Your task to perform on an android device: turn on sleep mode Image 0: 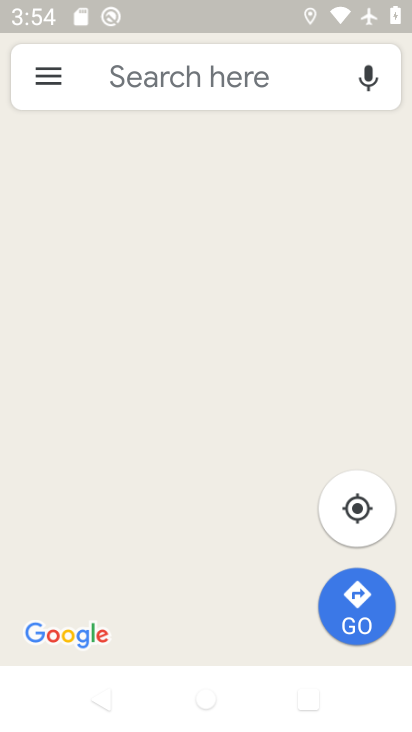
Step 0: press home button
Your task to perform on an android device: turn on sleep mode Image 1: 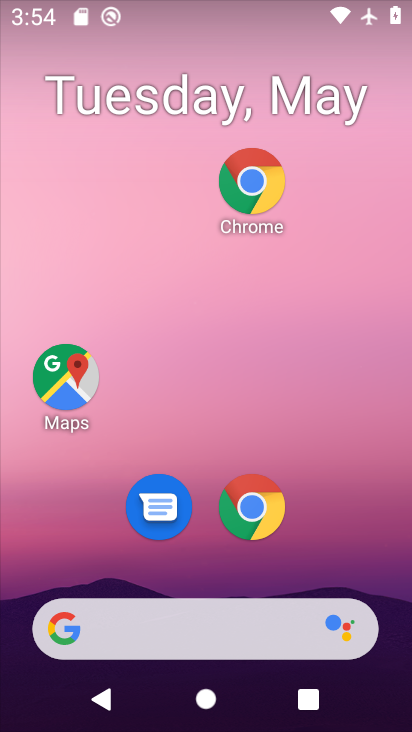
Step 1: drag from (306, 535) to (309, 155)
Your task to perform on an android device: turn on sleep mode Image 2: 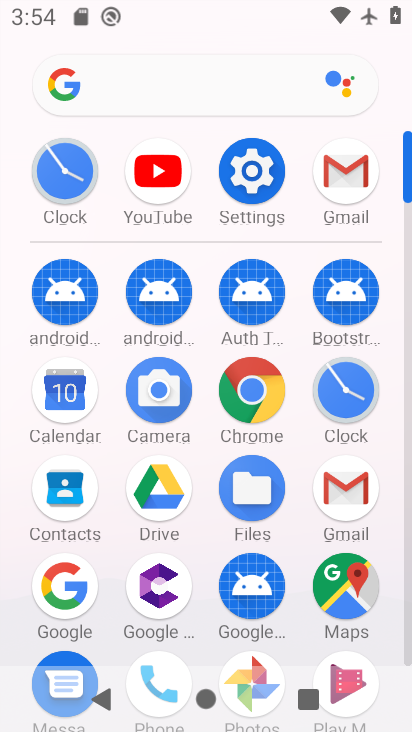
Step 2: click (261, 173)
Your task to perform on an android device: turn on sleep mode Image 3: 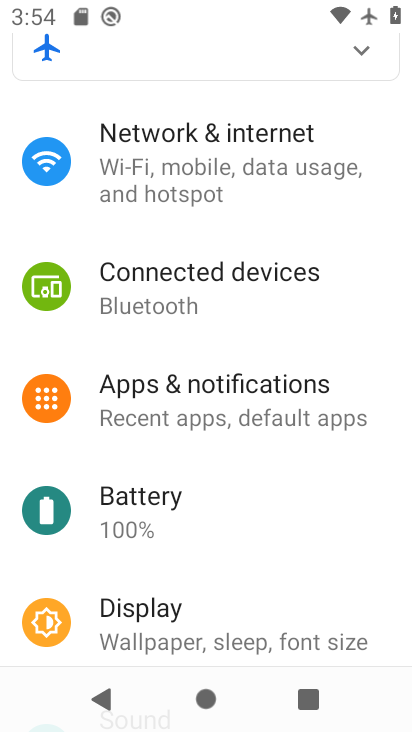
Step 3: drag from (243, 197) to (234, 542)
Your task to perform on an android device: turn on sleep mode Image 4: 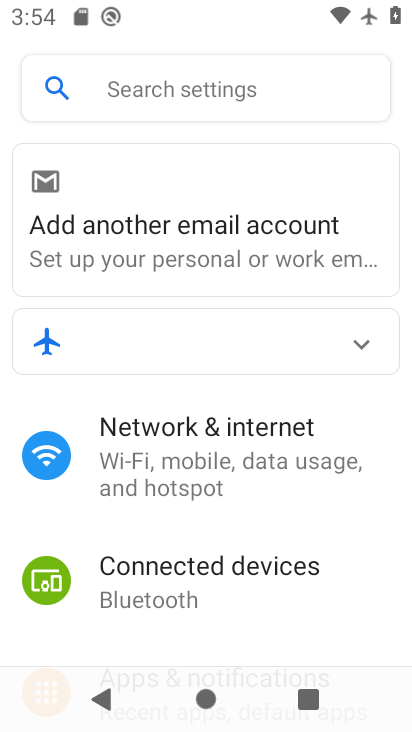
Step 4: drag from (225, 621) to (260, 251)
Your task to perform on an android device: turn on sleep mode Image 5: 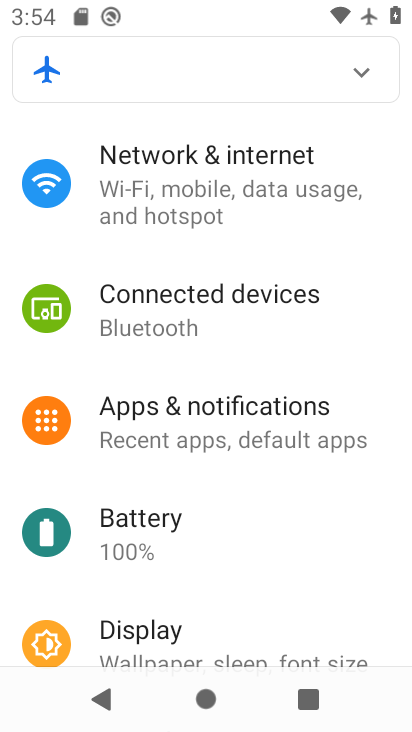
Step 5: drag from (252, 543) to (303, 182)
Your task to perform on an android device: turn on sleep mode Image 6: 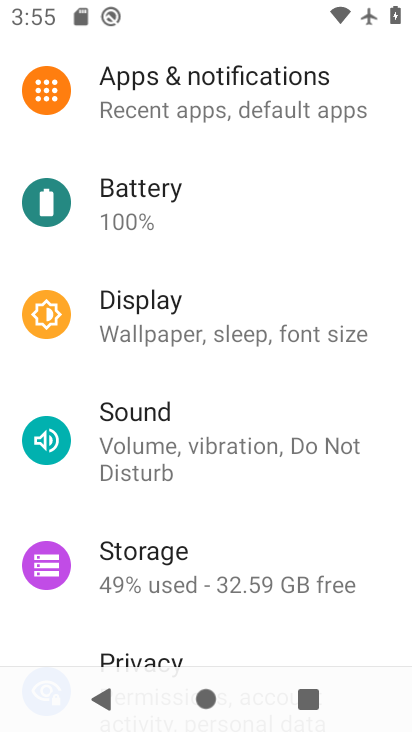
Step 6: click (146, 310)
Your task to perform on an android device: turn on sleep mode Image 7: 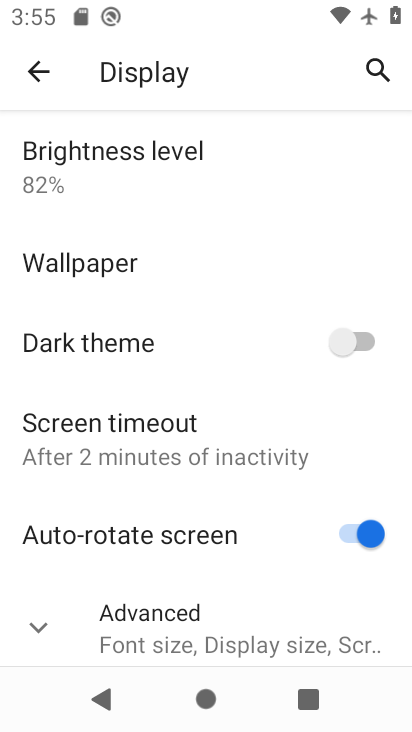
Step 7: drag from (146, 266) to (206, 533)
Your task to perform on an android device: turn on sleep mode Image 8: 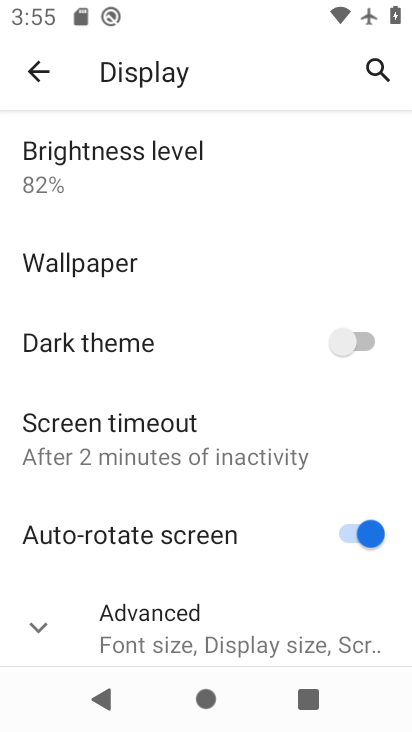
Step 8: click (193, 447)
Your task to perform on an android device: turn on sleep mode Image 9: 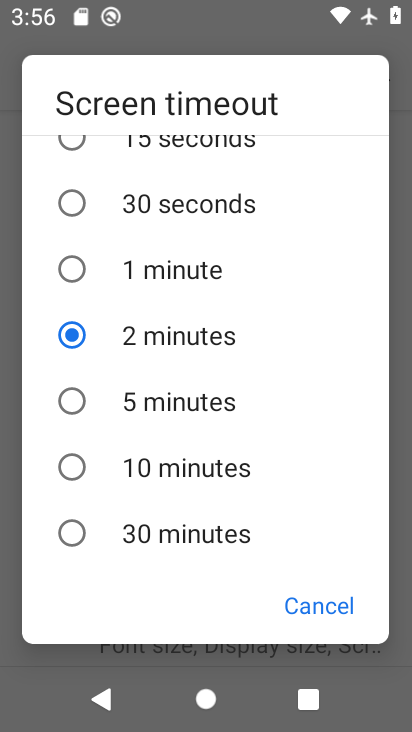
Step 9: task complete